Your task to perform on an android device: check storage Image 0: 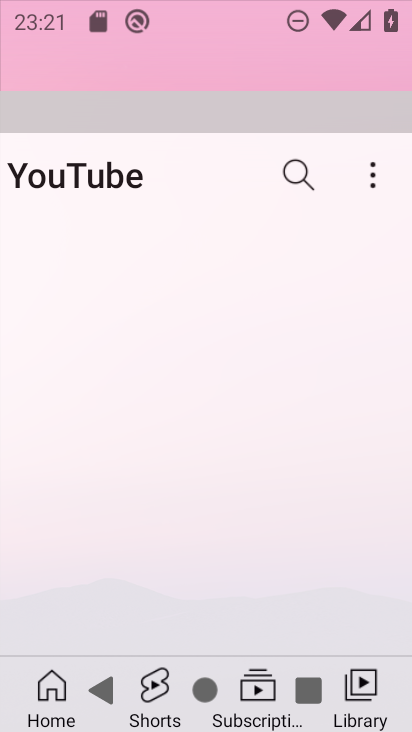
Step 0: click (327, 96)
Your task to perform on an android device: check storage Image 1: 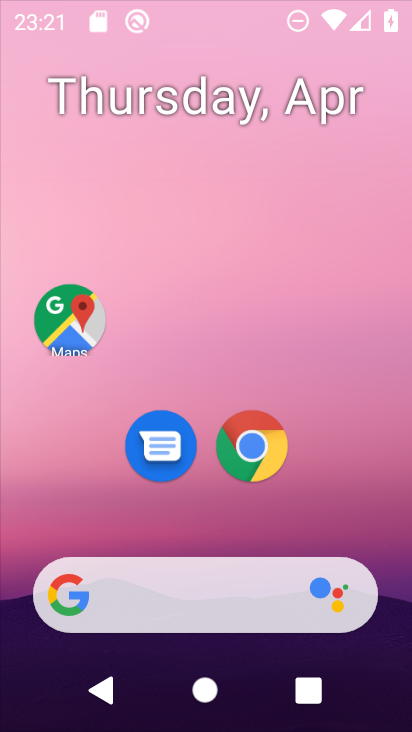
Step 1: drag from (240, 271) to (279, 102)
Your task to perform on an android device: check storage Image 2: 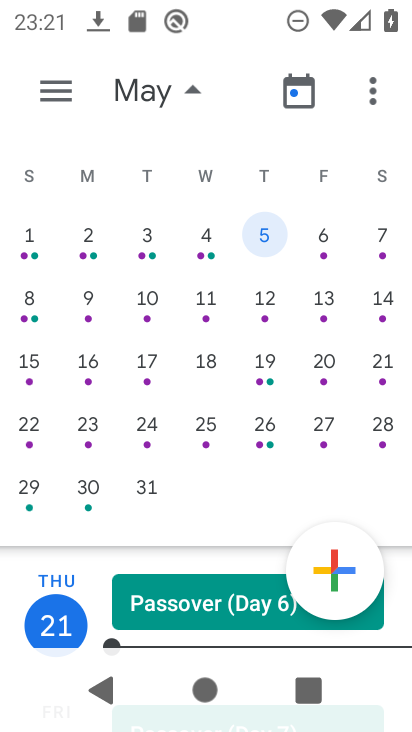
Step 2: drag from (197, 581) to (290, 192)
Your task to perform on an android device: check storage Image 3: 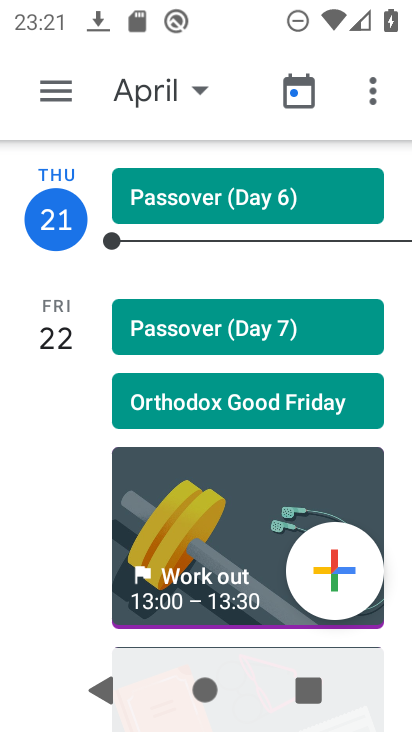
Step 3: press home button
Your task to perform on an android device: check storage Image 4: 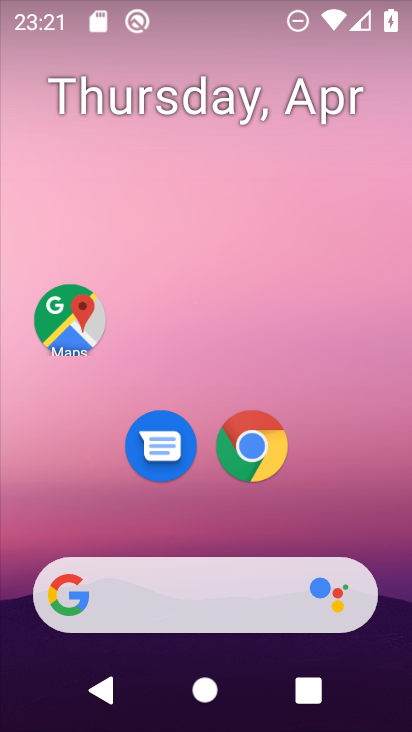
Step 4: drag from (201, 529) to (258, 246)
Your task to perform on an android device: check storage Image 5: 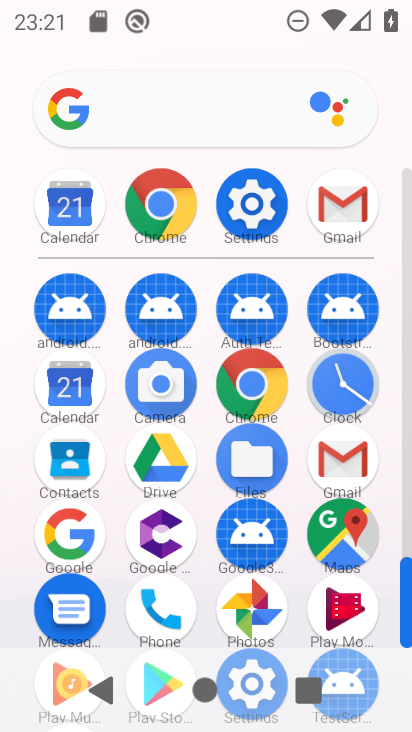
Step 5: click (267, 212)
Your task to perform on an android device: check storage Image 6: 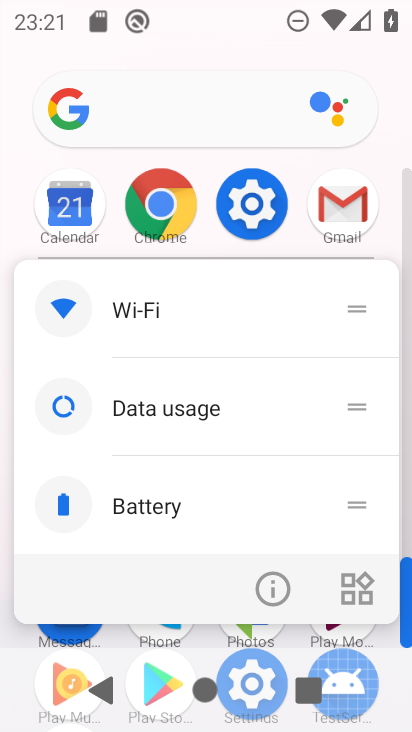
Step 6: click (273, 578)
Your task to perform on an android device: check storage Image 7: 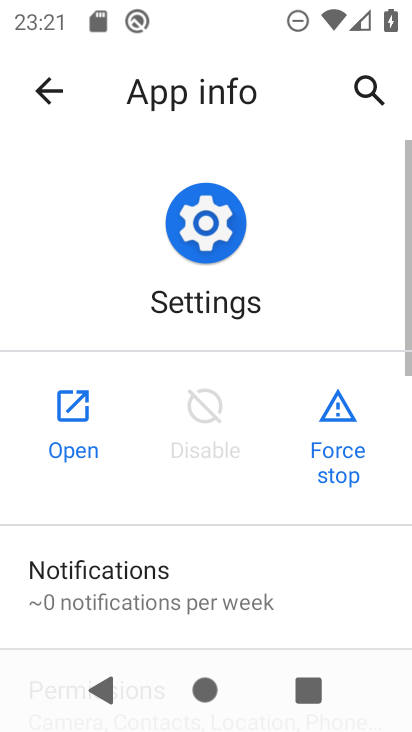
Step 7: click (64, 401)
Your task to perform on an android device: check storage Image 8: 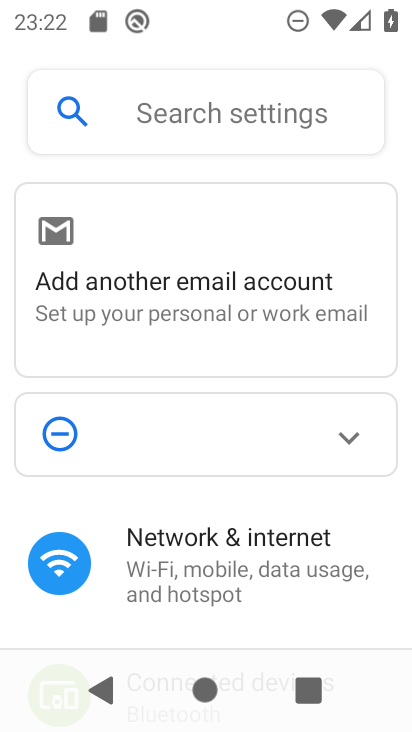
Step 8: drag from (229, 527) to (304, 227)
Your task to perform on an android device: check storage Image 9: 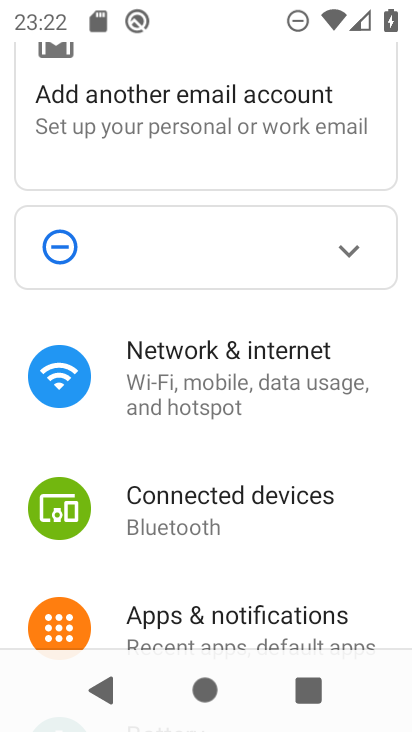
Step 9: drag from (214, 538) to (302, 155)
Your task to perform on an android device: check storage Image 10: 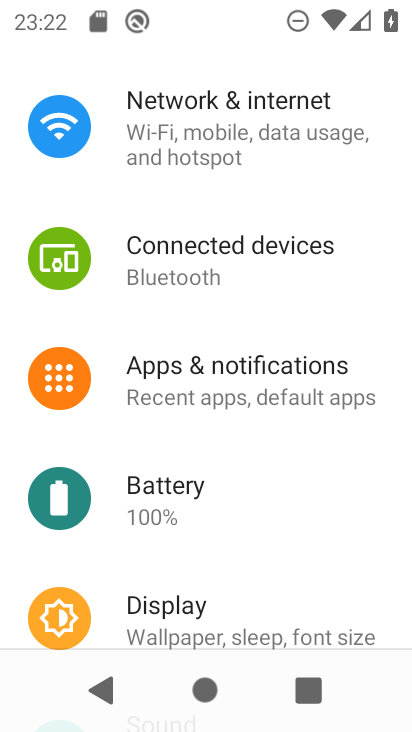
Step 10: drag from (191, 501) to (209, 110)
Your task to perform on an android device: check storage Image 11: 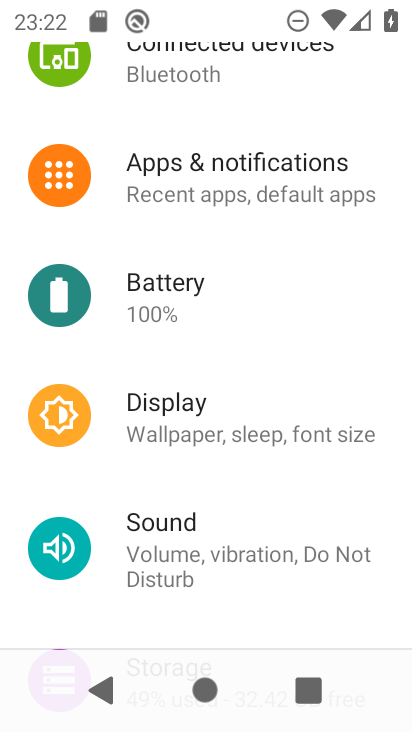
Step 11: drag from (213, 510) to (250, 83)
Your task to perform on an android device: check storage Image 12: 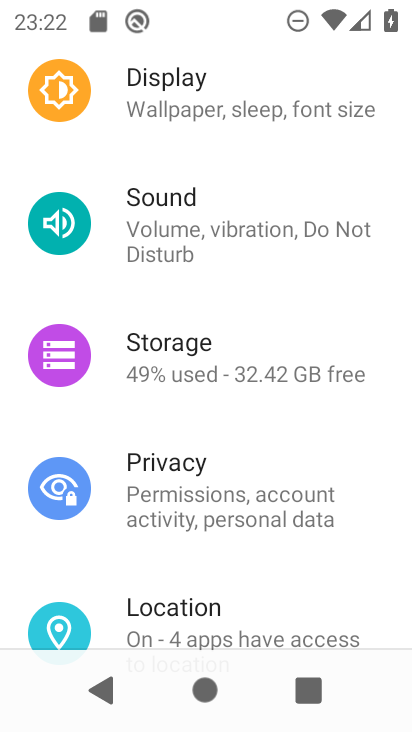
Step 12: click (205, 340)
Your task to perform on an android device: check storage Image 13: 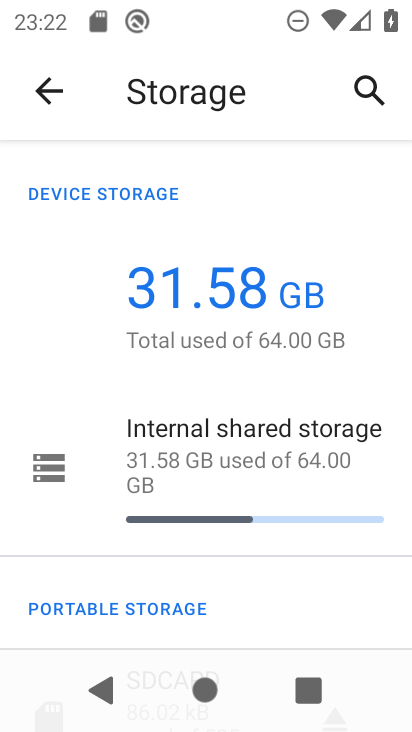
Step 13: task complete